Your task to perform on an android device: change the clock display to digital Image 0: 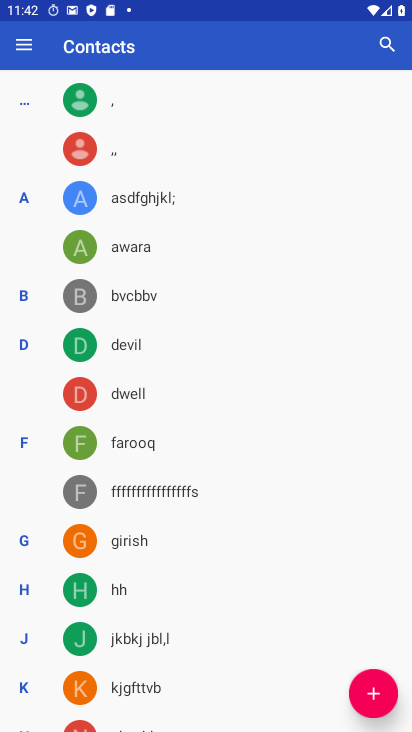
Step 0: press home button
Your task to perform on an android device: change the clock display to digital Image 1: 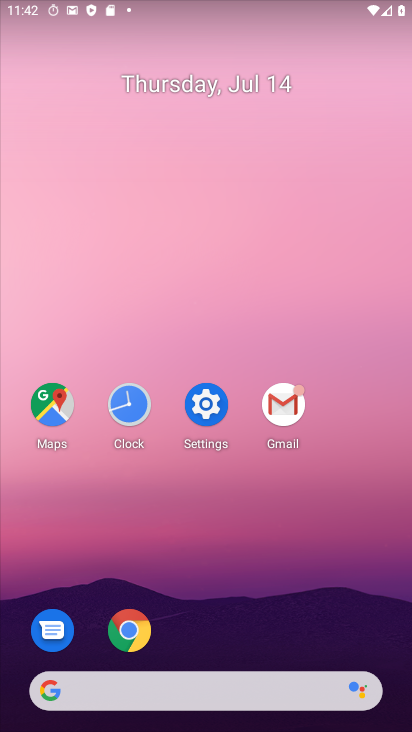
Step 1: click (125, 408)
Your task to perform on an android device: change the clock display to digital Image 2: 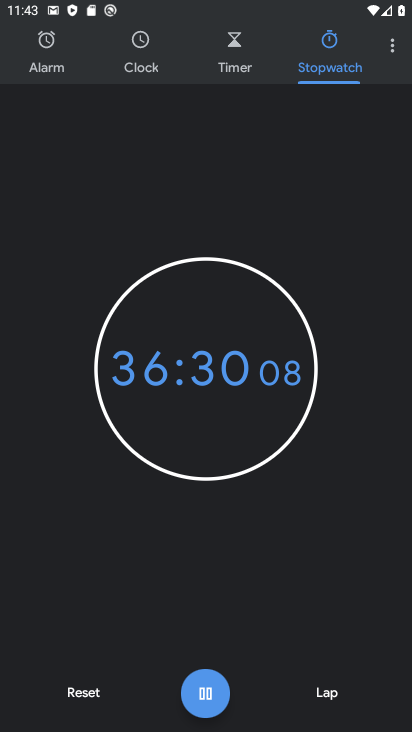
Step 2: click (394, 53)
Your task to perform on an android device: change the clock display to digital Image 3: 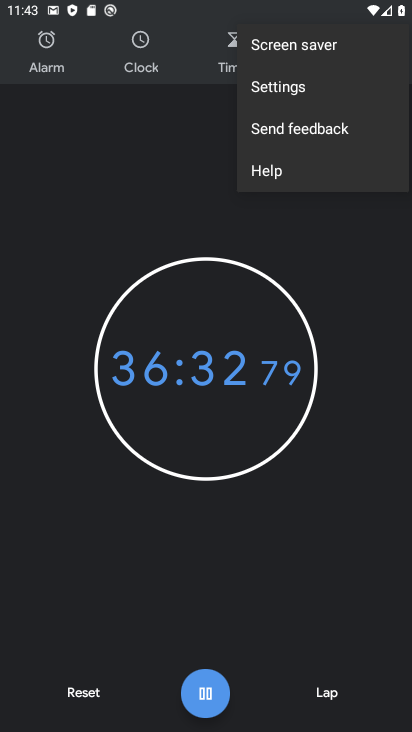
Step 3: click (250, 91)
Your task to perform on an android device: change the clock display to digital Image 4: 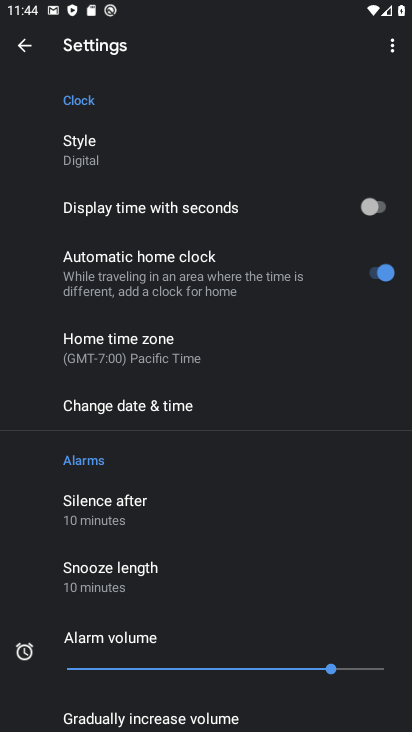
Step 4: click (90, 154)
Your task to perform on an android device: change the clock display to digital Image 5: 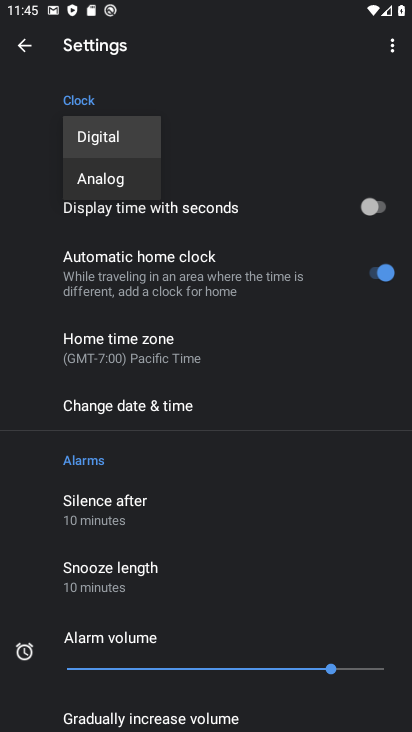
Step 5: click (129, 139)
Your task to perform on an android device: change the clock display to digital Image 6: 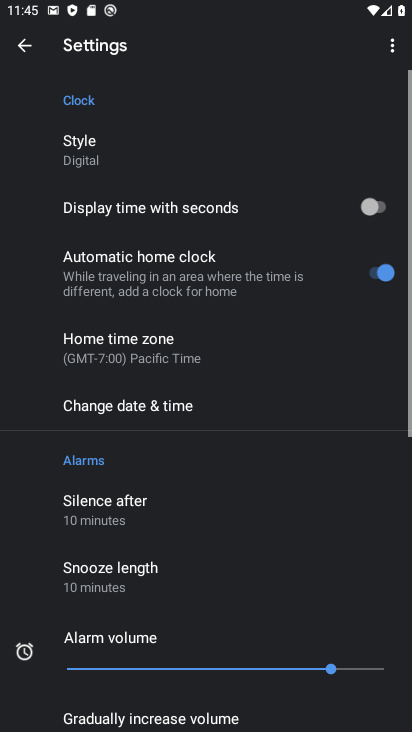
Step 6: task complete